Your task to perform on an android device: Open Youtube and go to "Your channel" Image 0: 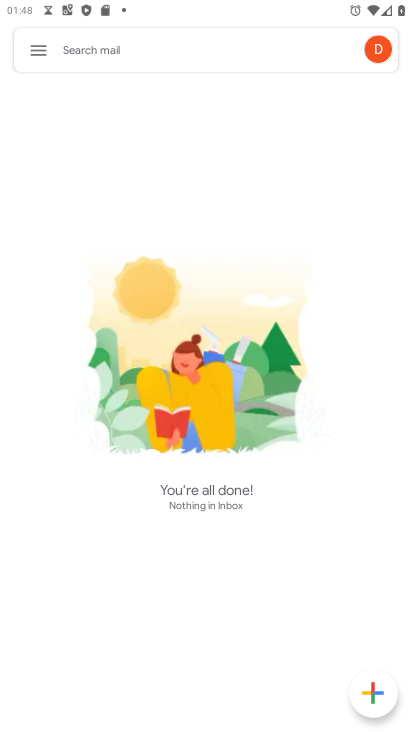
Step 0: press home button
Your task to perform on an android device: Open Youtube and go to "Your channel" Image 1: 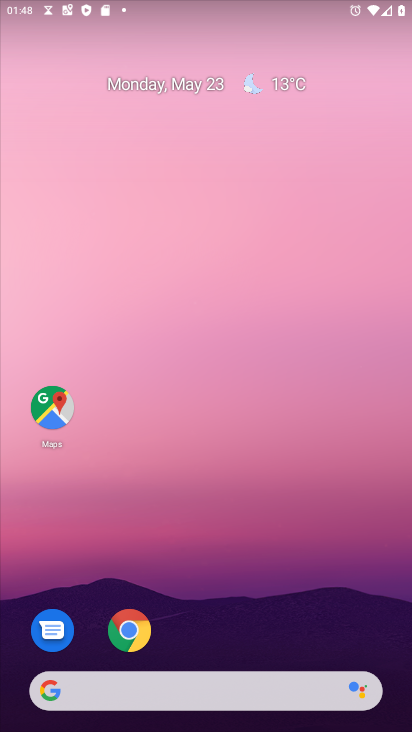
Step 1: drag from (290, 564) to (141, 29)
Your task to perform on an android device: Open Youtube and go to "Your channel" Image 2: 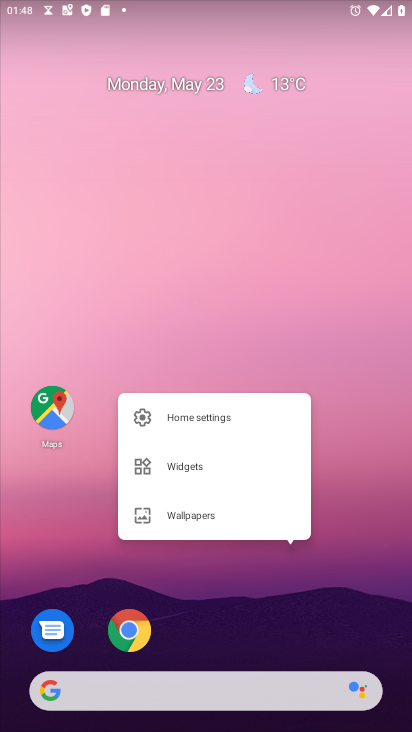
Step 2: click (163, 4)
Your task to perform on an android device: Open Youtube and go to "Your channel" Image 3: 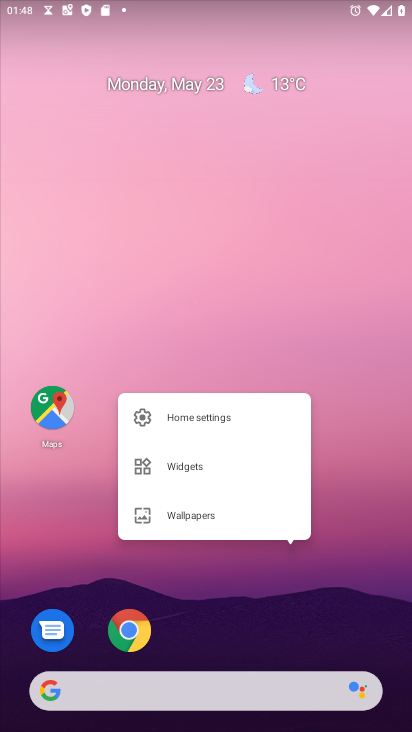
Step 3: drag from (232, 618) to (175, 91)
Your task to perform on an android device: Open Youtube and go to "Your channel" Image 4: 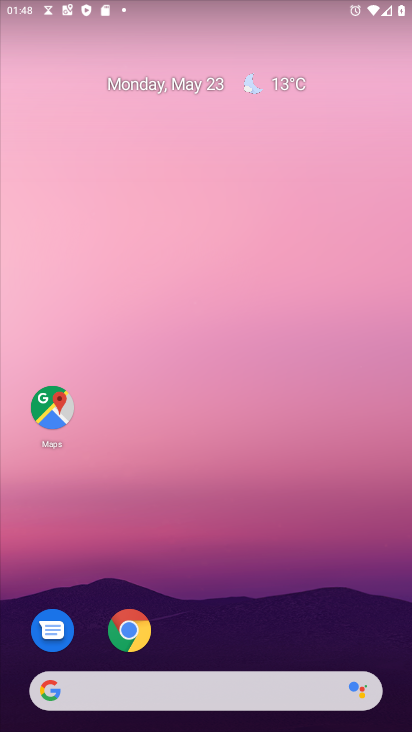
Step 4: drag from (288, 634) to (166, 145)
Your task to perform on an android device: Open Youtube and go to "Your channel" Image 5: 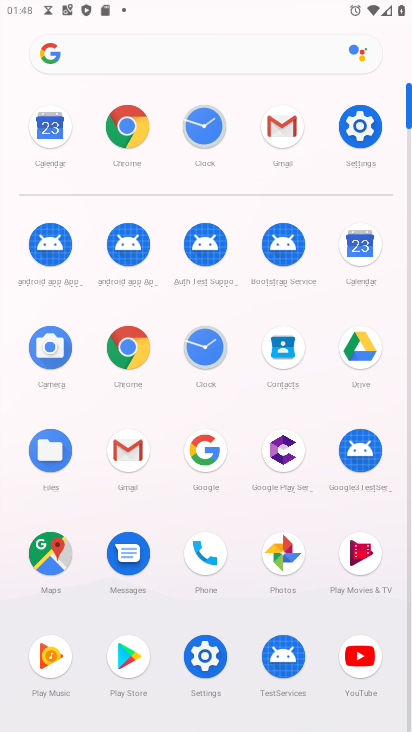
Step 5: click (362, 660)
Your task to perform on an android device: Open Youtube and go to "Your channel" Image 6: 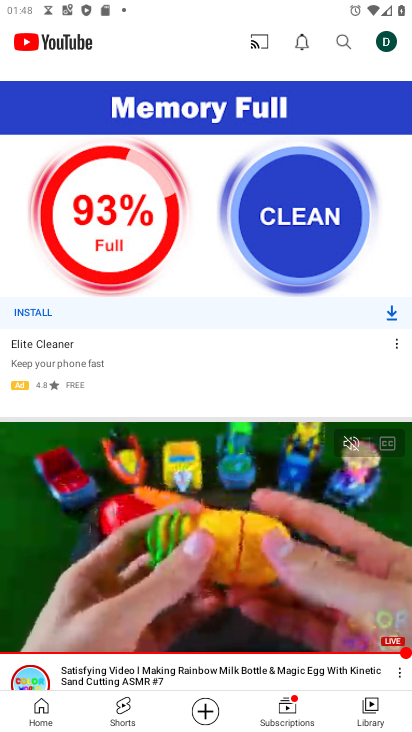
Step 6: click (384, 45)
Your task to perform on an android device: Open Youtube and go to "Your channel" Image 7: 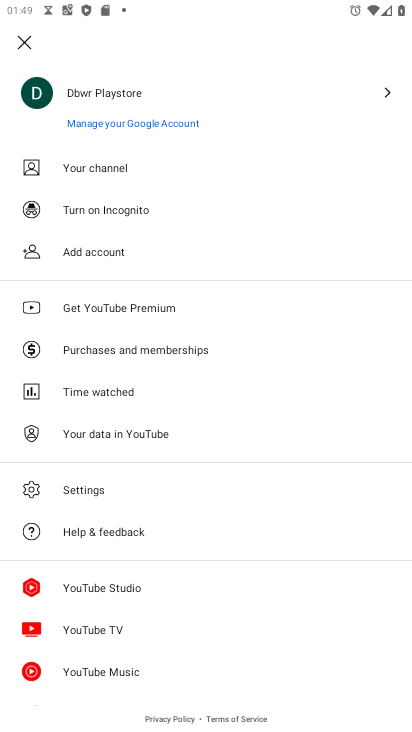
Step 7: click (155, 173)
Your task to perform on an android device: Open Youtube and go to "Your channel" Image 8: 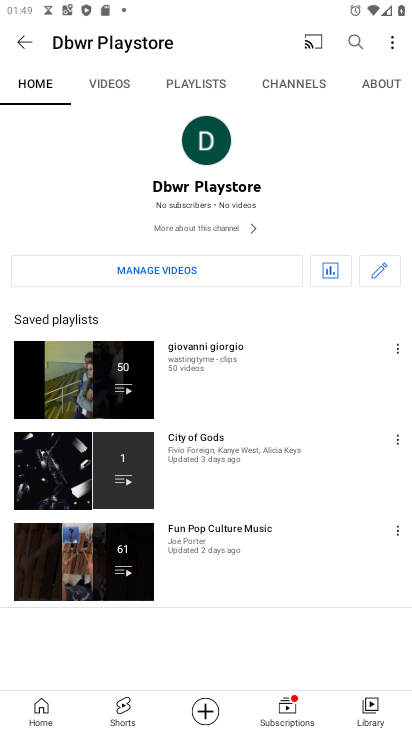
Step 8: task complete